Your task to perform on an android device: Open the web browser Image 0: 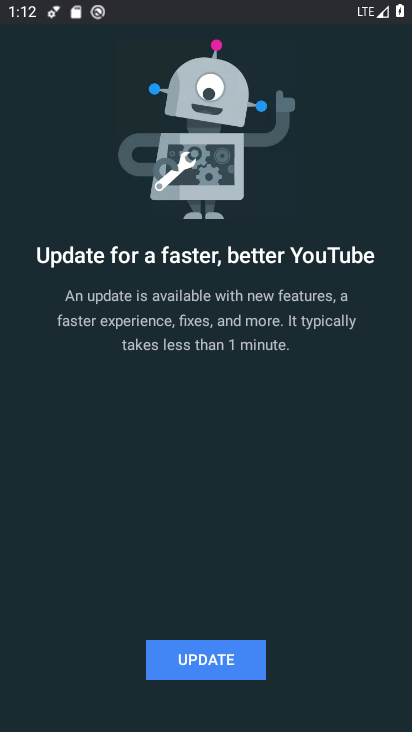
Step 0: press home button
Your task to perform on an android device: Open the web browser Image 1: 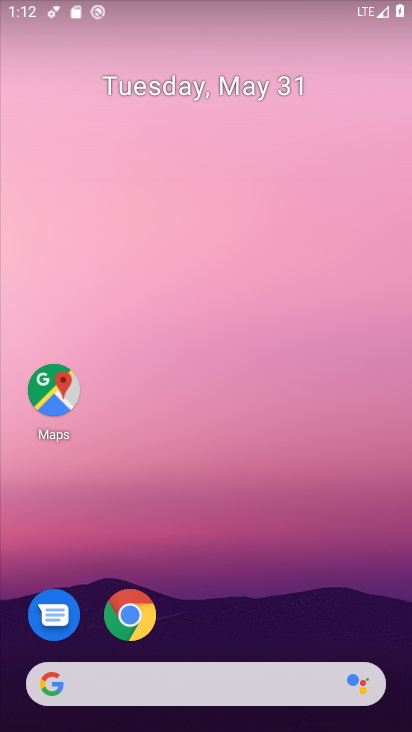
Step 1: click (145, 614)
Your task to perform on an android device: Open the web browser Image 2: 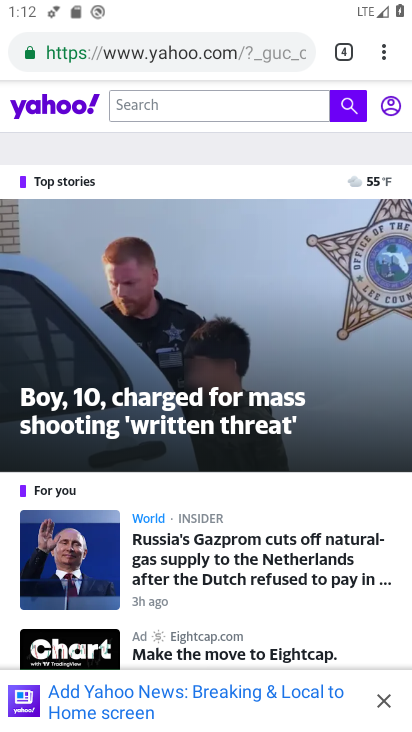
Step 2: task complete